Your task to perform on an android device: Open the Play Movies app and select the watchlist tab. Image 0: 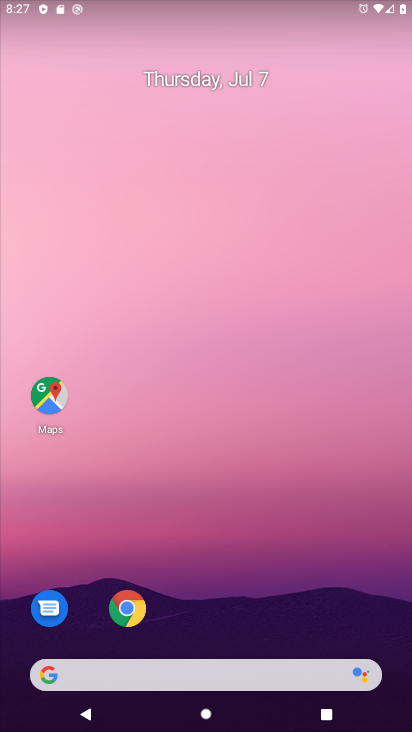
Step 0: drag from (240, 634) to (235, 118)
Your task to perform on an android device: Open the Play Movies app and select the watchlist tab. Image 1: 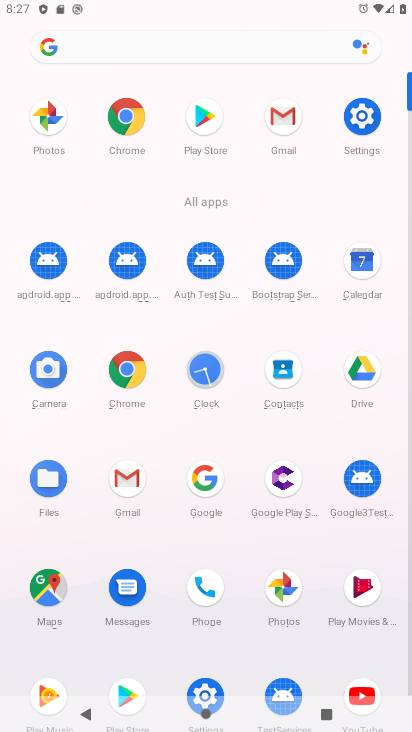
Step 1: click (363, 595)
Your task to perform on an android device: Open the Play Movies app and select the watchlist tab. Image 2: 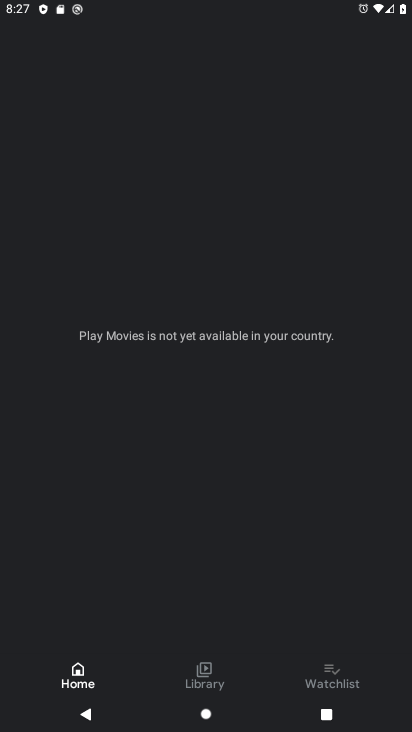
Step 2: click (319, 677)
Your task to perform on an android device: Open the Play Movies app and select the watchlist tab. Image 3: 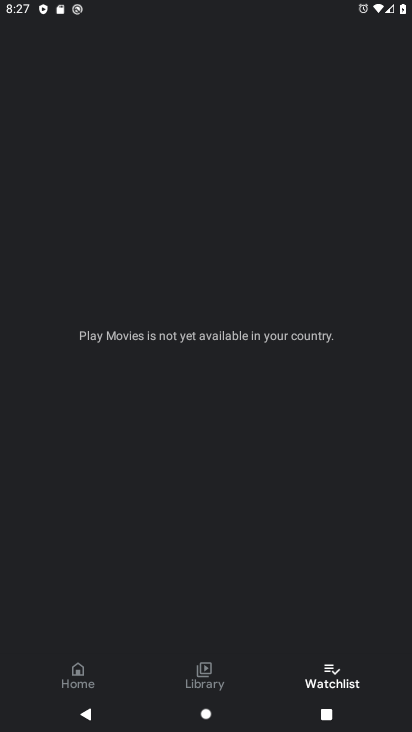
Step 3: task complete